Your task to perform on an android device: Search for Italian restaurants on Maps Image 0: 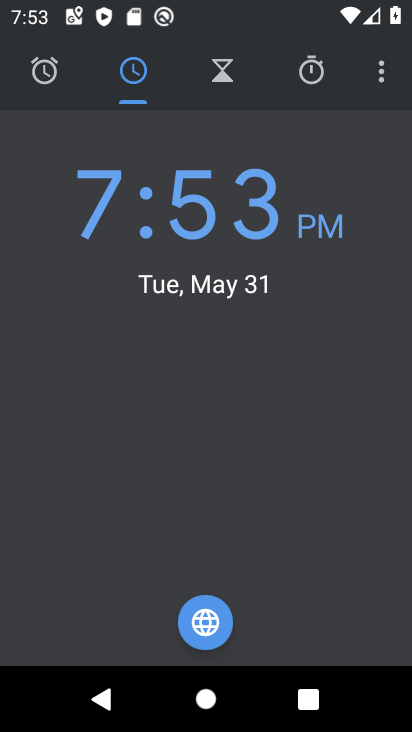
Step 0: press home button
Your task to perform on an android device: Search for Italian restaurants on Maps Image 1: 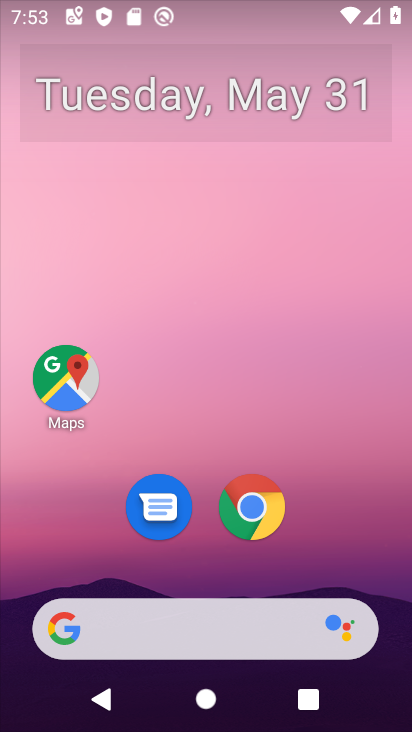
Step 1: click (65, 380)
Your task to perform on an android device: Search for Italian restaurants on Maps Image 2: 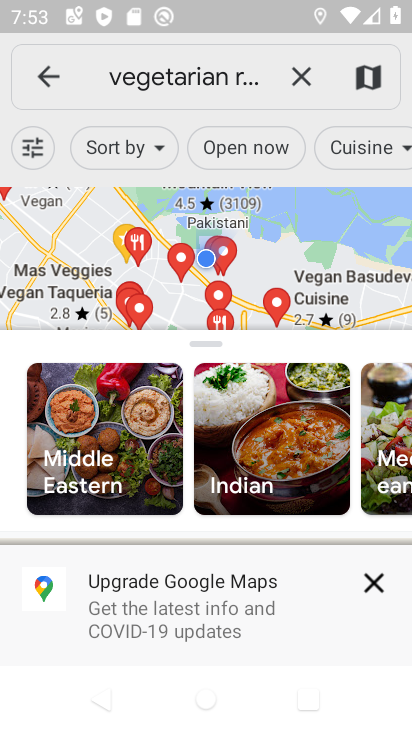
Step 2: click (223, 71)
Your task to perform on an android device: Search for Italian restaurants on Maps Image 3: 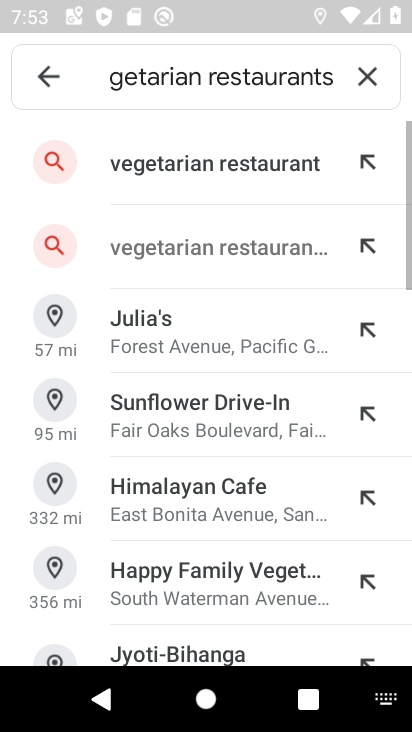
Step 3: click (382, 74)
Your task to perform on an android device: Search for Italian restaurants on Maps Image 4: 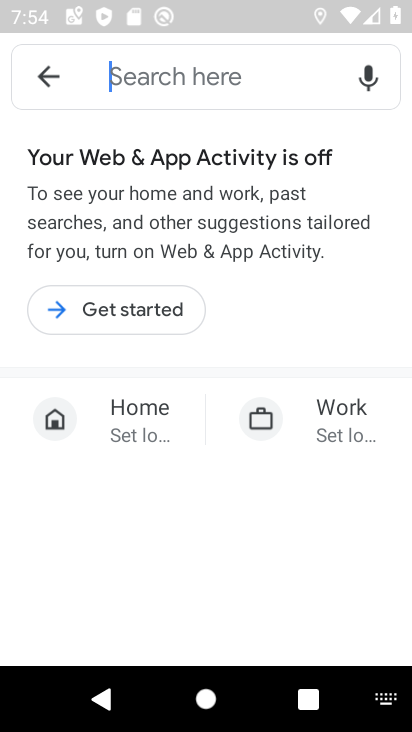
Step 4: type "Italian restaurants"
Your task to perform on an android device: Search for Italian restaurants on Maps Image 5: 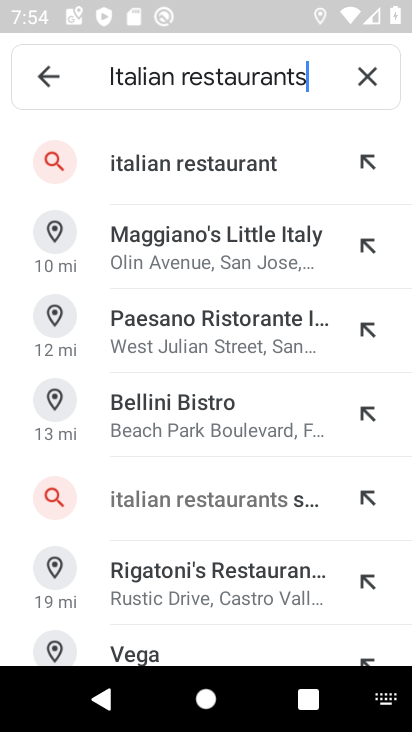
Step 5: press enter
Your task to perform on an android device: Search for Italian restaurants on Maps Image 6: 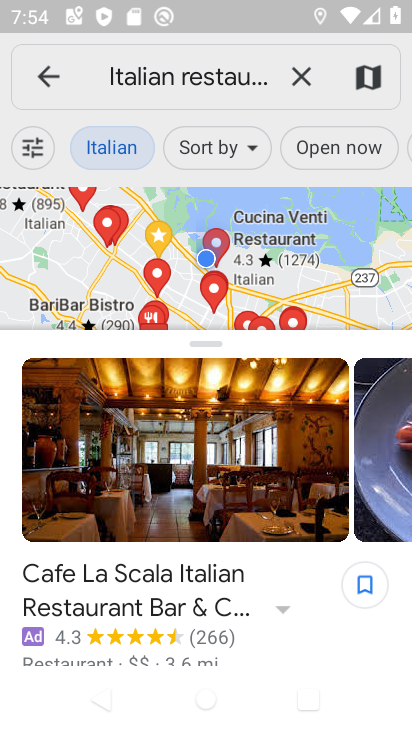
Step 6: task complete